Your task to perform on an android device: Open accessibility settings Image 0: 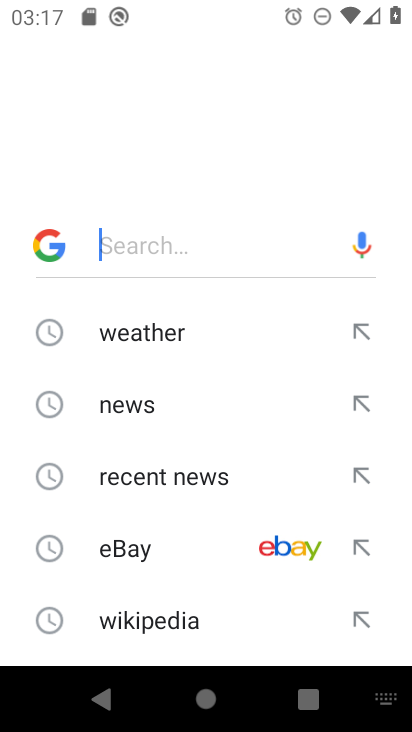
Step 0: press home button
Your task to perform on an android device: Open accessibility settings Image 1: 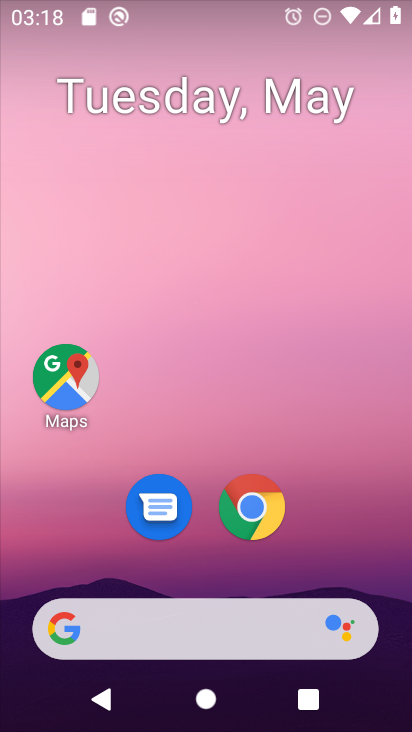
Step 1: drag from (193, 552) to (226, 200)
Your task to perform on an android device: Open accessibility settings Image 2: 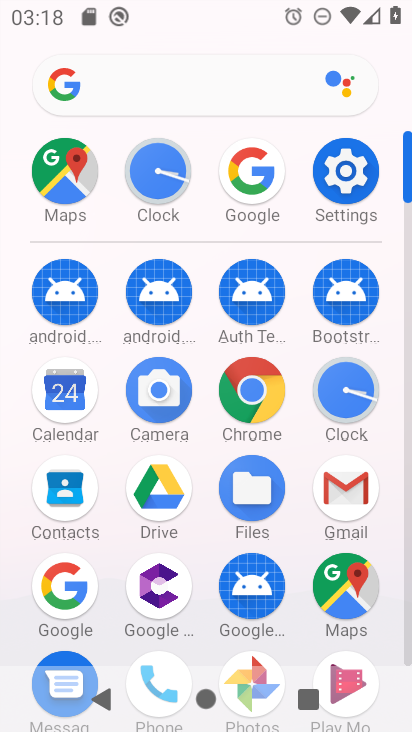
Step 2: click (327, 175)
Your task to perform on an android device: Open accessibility settings Image 3: 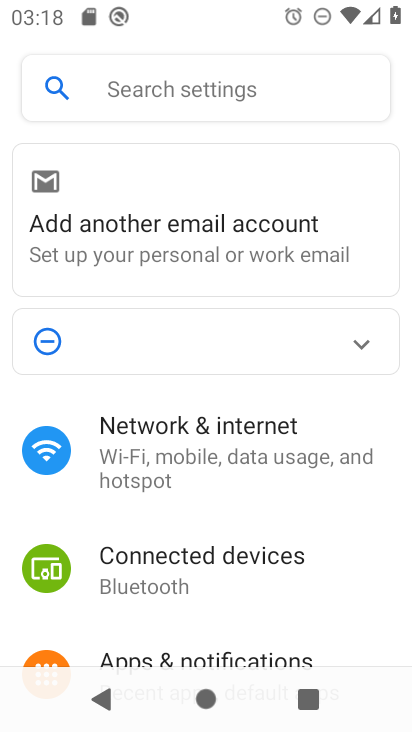
Step 3: drag from (252, 597) to (275, 296)
Your task to perform on an android device: Open accessibility settings Image 4: 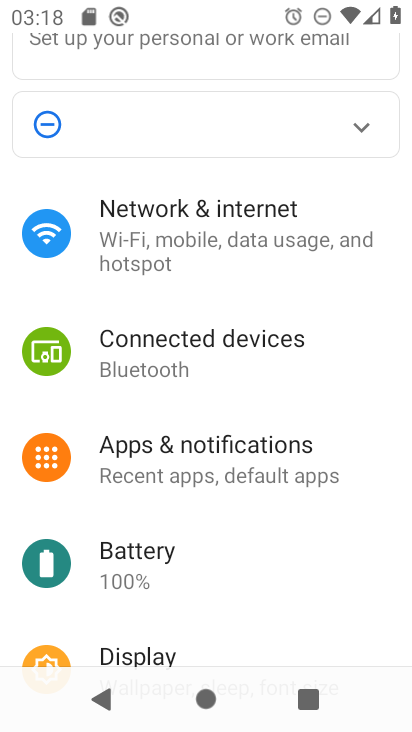
Step 4: drag from (269, 574) to (296, 301)
Your task to perform on an android device: Open accessibility settings Image 5: 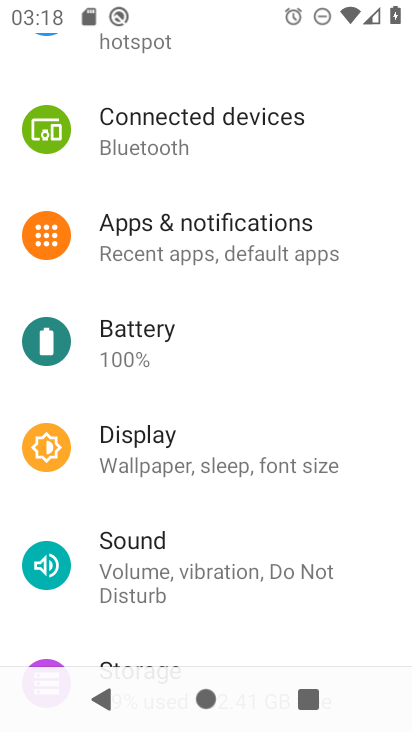
Step 5: drag from (291, 586) to (313, 298)
Your task to perform on an android device: Open accessibility settings Image 6: 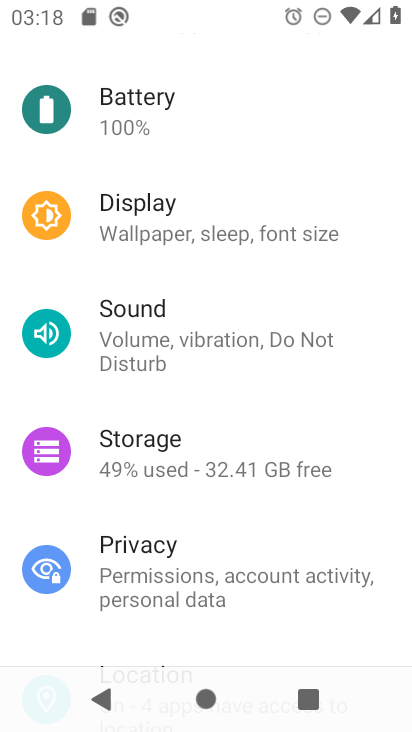
Step 6: drag from (248, 573) to (286, 299)
Your task to perform on an android device: Open accessibility settings Image 7: 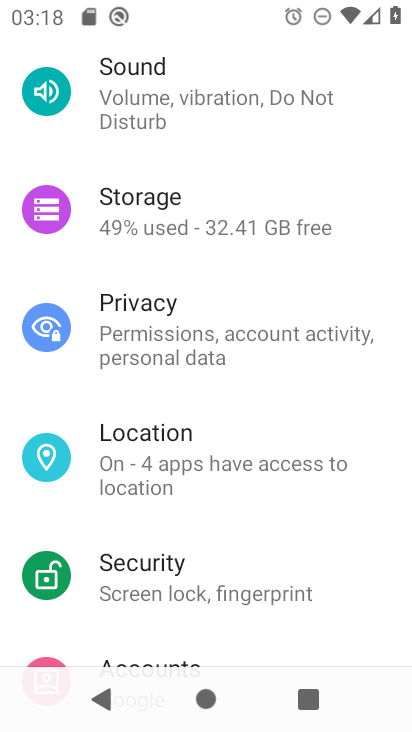
Step 7: drag from (260, 574) to (282, 299)
Your task to perform on an android device: Open accessibility settings Image 8: 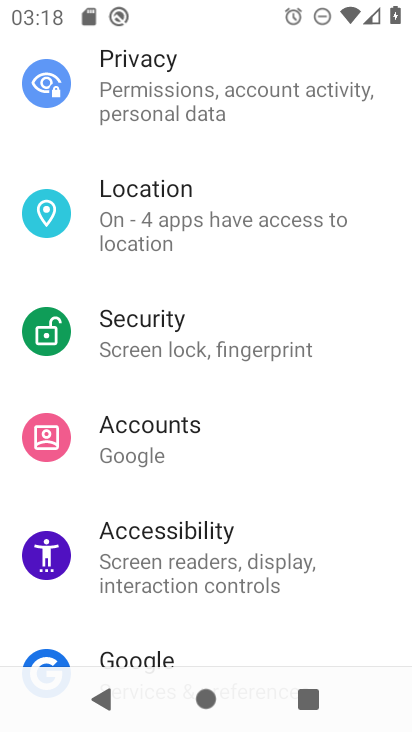
Step 8: click (246, 544)
Your task to perform on an android device: Open accessibility settings Image 9: 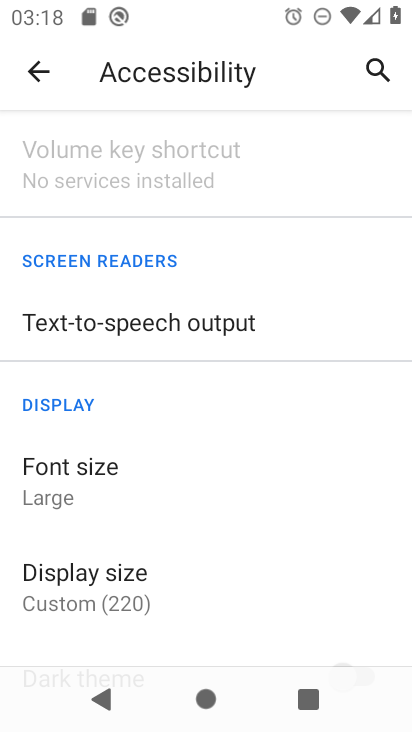
Step 9: task complete